Your task to perform on an android device: delete a single message in the gmail app Image 0: 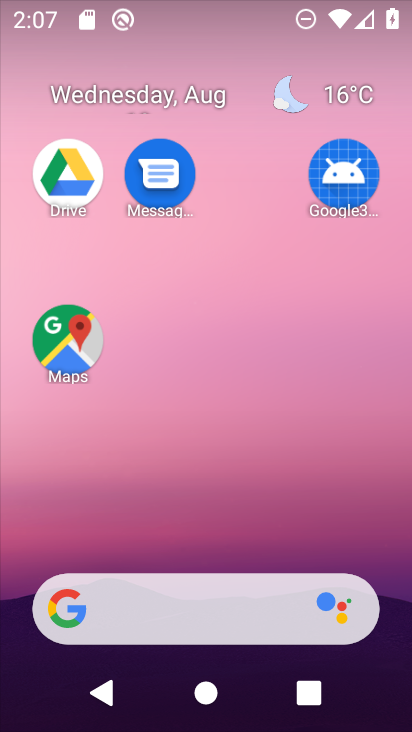
Step 0: drag from (209, 528) to (187, 80)
Your task to perform on an android device: delete a single message in the gmail app Image 1: 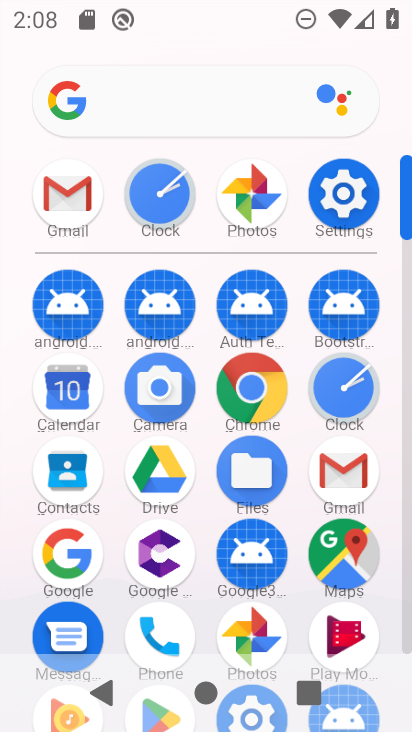
Step 1: click (70, 203)
Your task to perform on an android device: delete a single message in the gmail app Image 2: 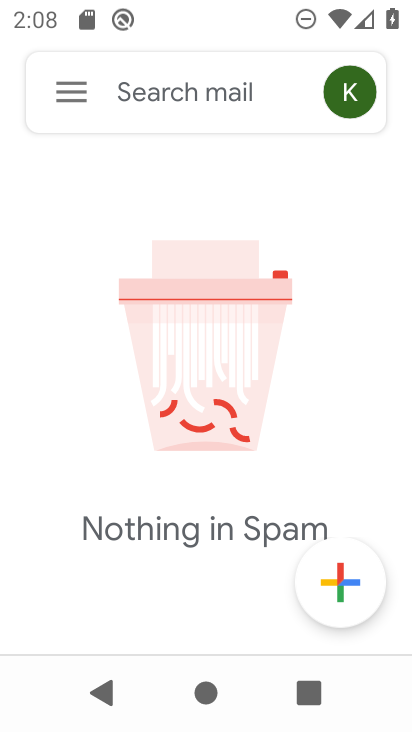
Step 2: click (57, 104)
Your task to perform on an android device: delete a single message in the gmail app Image 3: 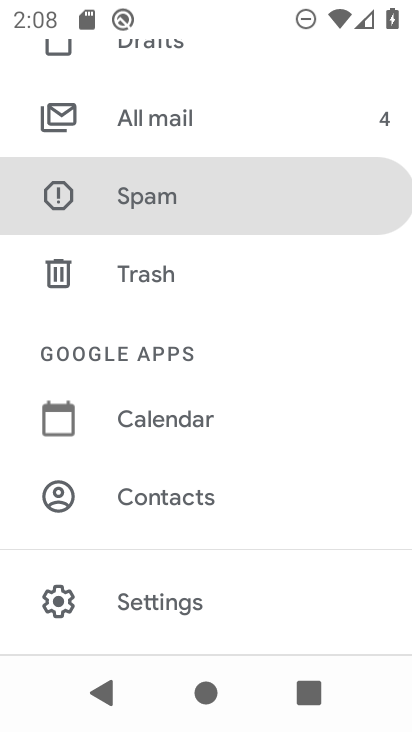
Step 3: click (172, 99)
Your task to perform on an android device: delete a single message in the gmail app Image 4: 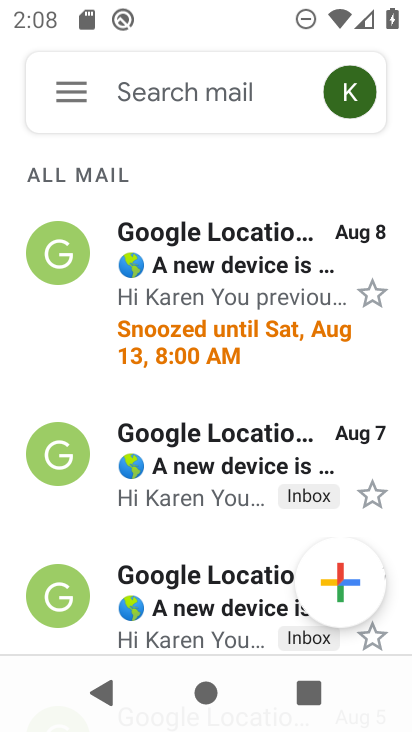
Step 4: click (78, 235)
Your task to perform on an android device: delete a single message in the gmail app Image 5: 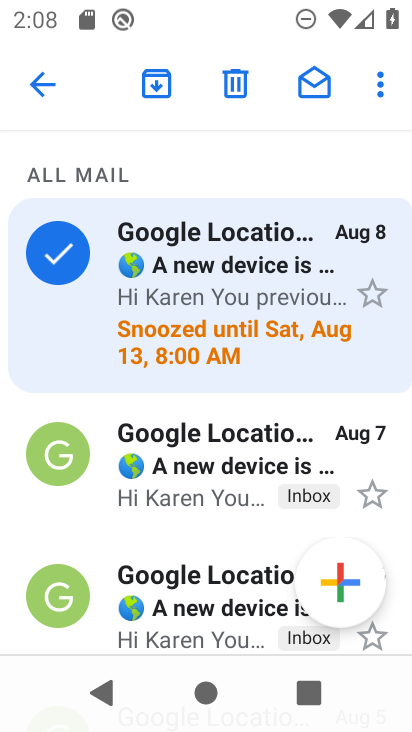
Step 5: click (239, 92)
Your task to perform on an android device: delete a single message in the gmail app Image 6: 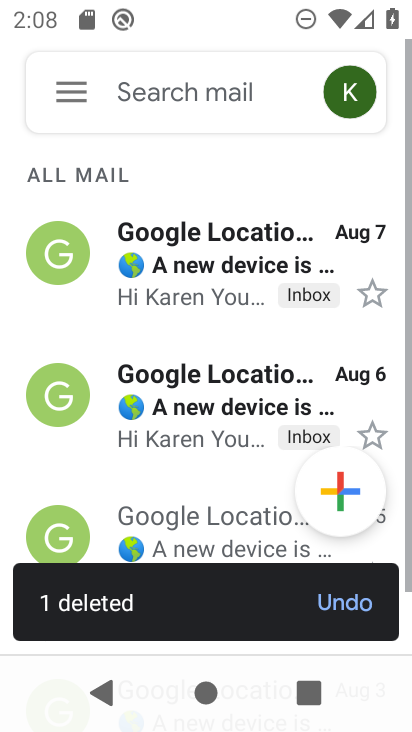
Step 6: task complete